Your task to perform on an android device: Show me productivity apps on the Play Store Image 0: 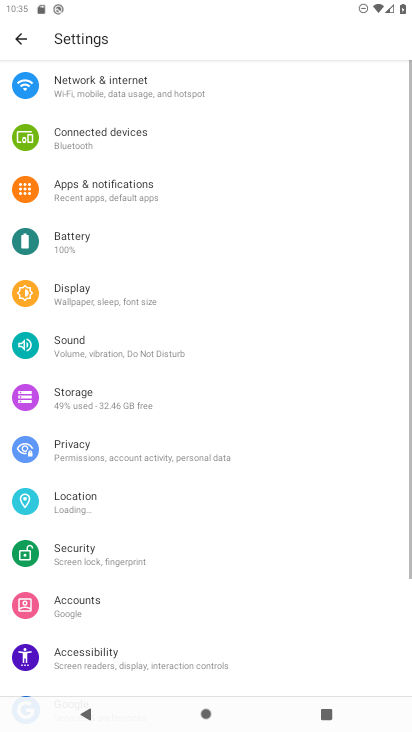
Step 0: press home button
Your task to perform on an android device: Show me productivity apps on the Play Store Image 1: 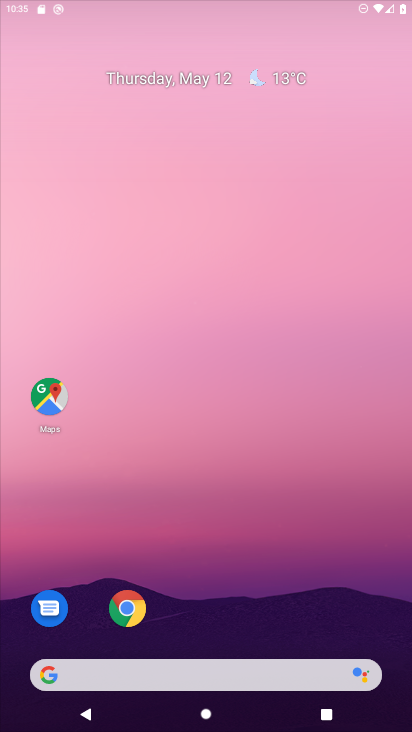
Step 1: drag from (221, 599) to (261, 76)
Your task to perform on an android device: Show me productivity apps on the Play Store Image 2: 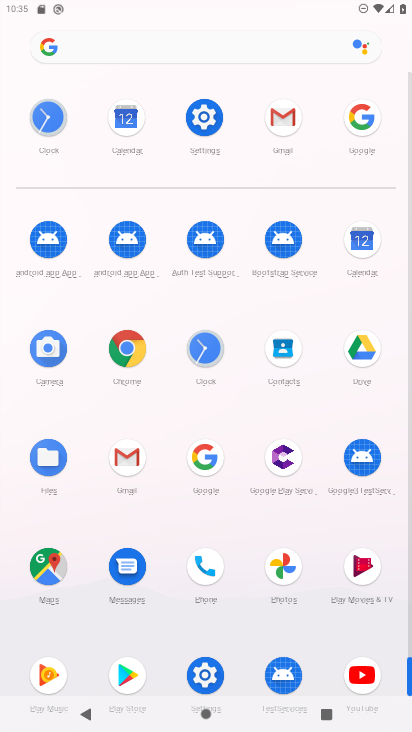
Step 2: click (132, 666)
Your task to perform on an android device: Show me productivity apps on the Play Store Image 3: 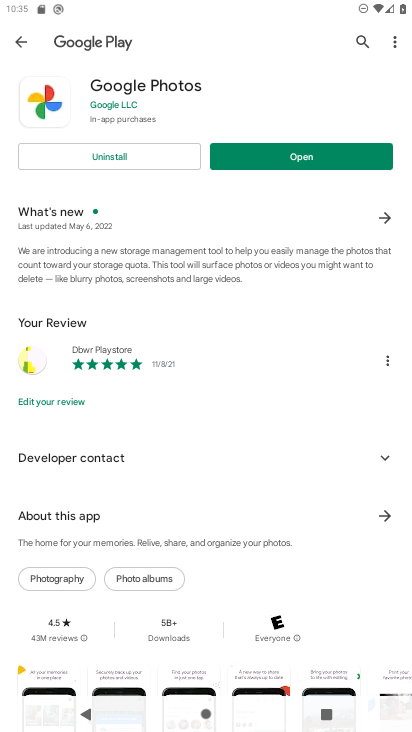
Step 3: press back button
Your task to perform on an android device: Show me productivity apps on the Play Store Image 4: 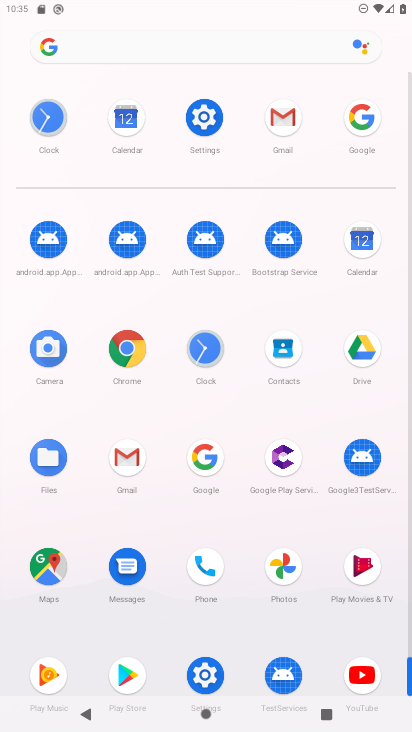
Step 4: click (129, 680)
Your task to perform on an android device: Show me productivity apps on the Play Store Image 5: 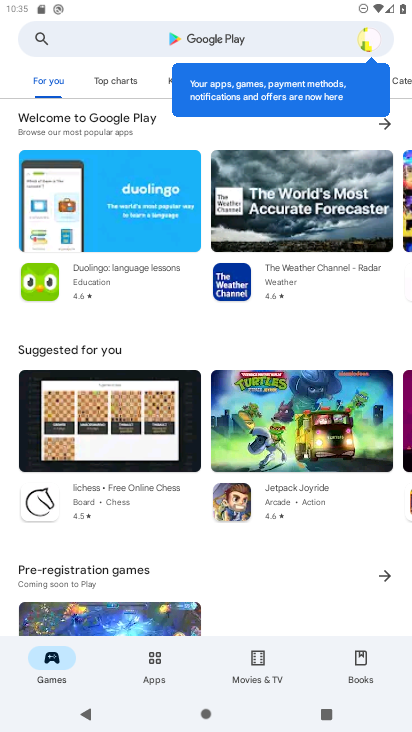
Step 5: click (156, 675)
Your task to perform on an android device: Show me productivity apps on the Play Store Image 6: 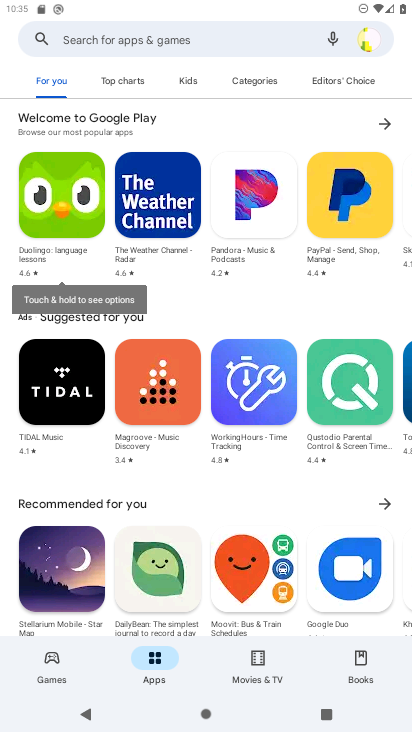
Step 6: drag from (383, 83) to (82, 87)
Your task to perform on an android device: Show me productivity apps on the Play Store Image 7: 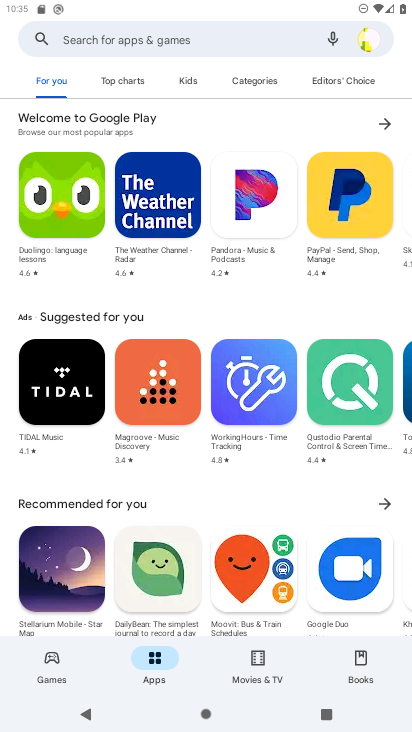
Step 7: click (254, 82)
Your task to perform on an android device: Show me productivity apps on the Play Store Image 8: 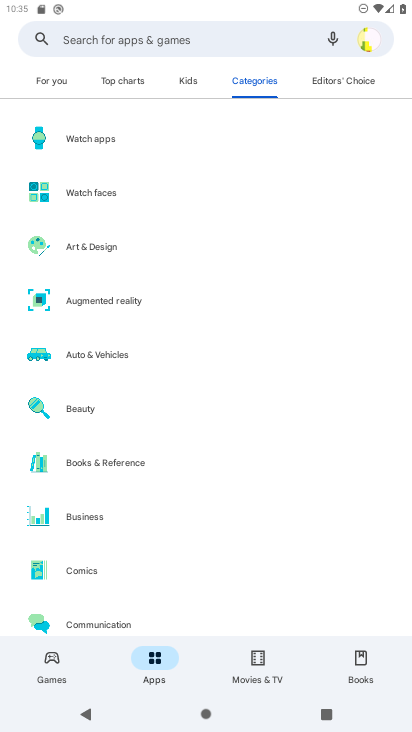
Step 8: drag from (202, 558) to (257, 77)
Your task to perform on an android device: Show me productivity apps on the Play Store Image 9: 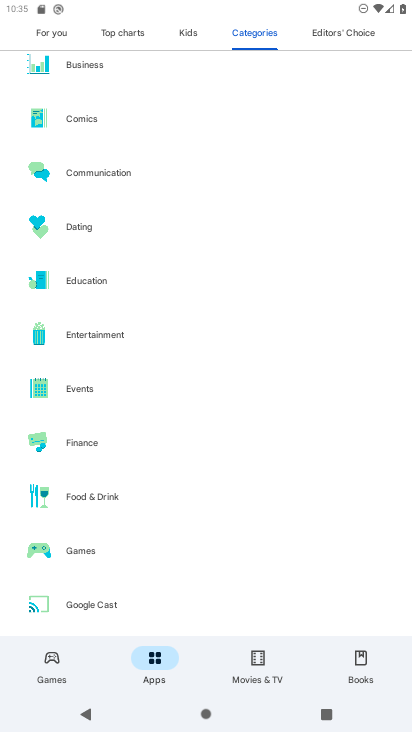
Step 9: drag from (168, 574) to (180, 80)
Your task to perform on an android device: Show me productivity apps on the Play Store Image 10: 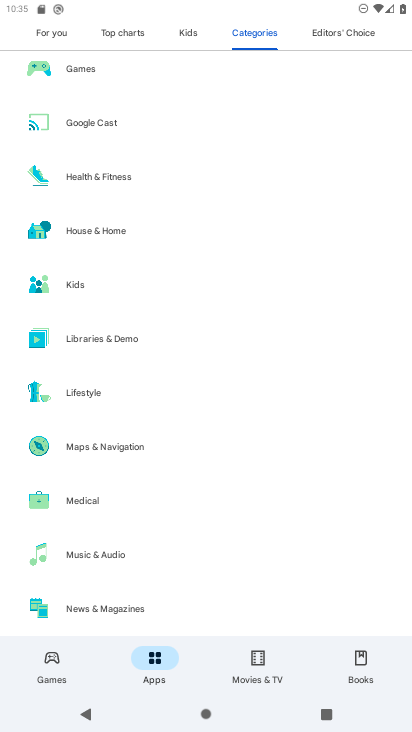
Step 10: drag from (208, 554) to (196, 80)
Your task to perform on an android device: Show me productivity apps on the Play Store Image 11: 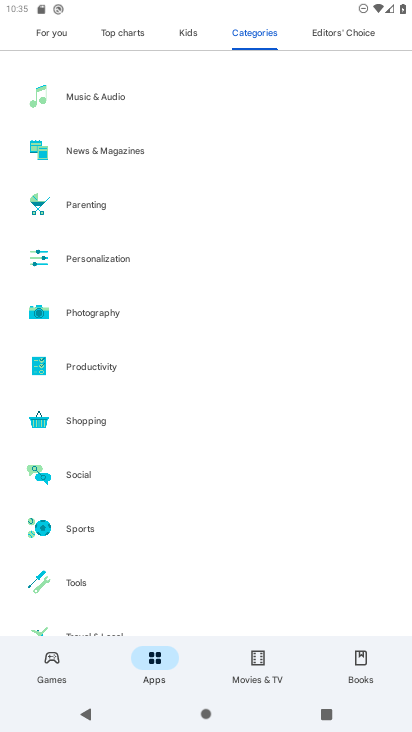
Step 11: click (110, 375)
Your task to perform on an android device: Show me productivity apps on the Play Store Image 12: 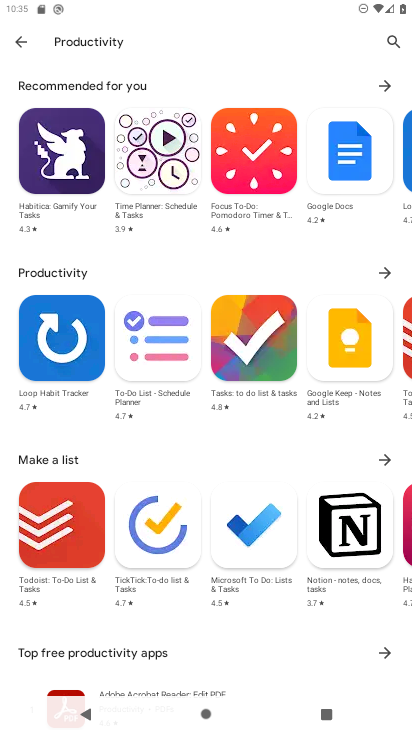
Step 12: drag from (201, 636) to (191, 476)
Your task to perform on an android device: Show me productivity apps on the Play Store Image 13: 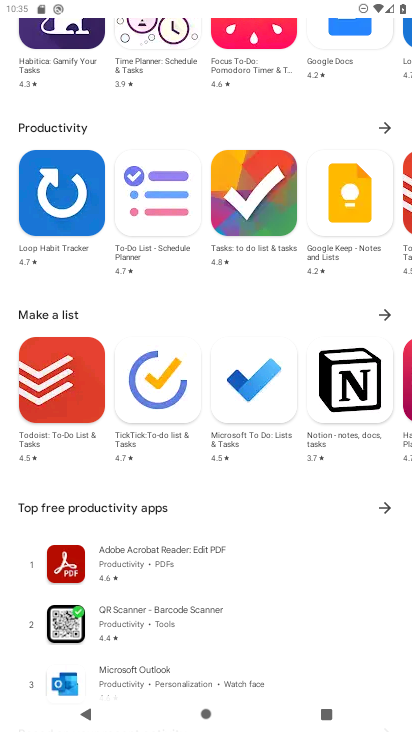
Step 13: click (235, 507)
Your task to perform on an android device: Show me productivity apps on the Play Store Image 14: 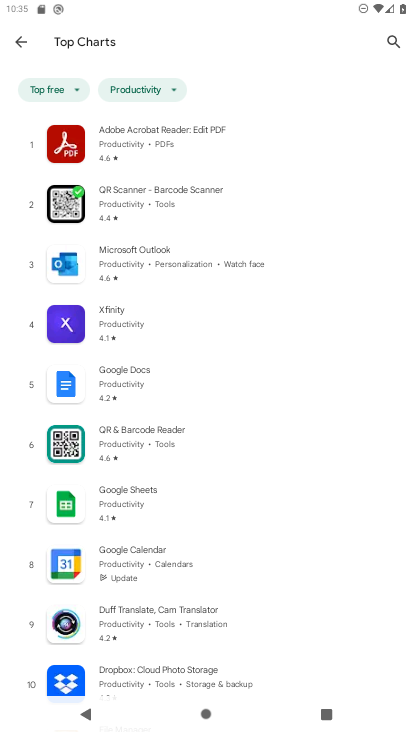
Step 14: task complete